Your task to perform on an android device: Open settings on Google Maps Image 0: 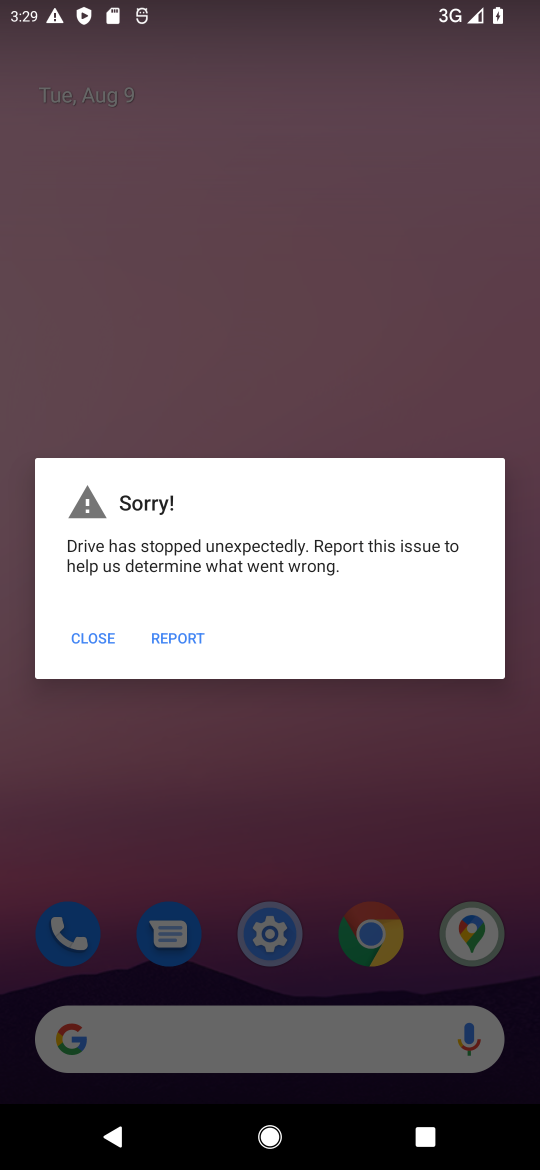
Step 0: press home button
Your task to perform on an android device: Open settings on Google Maps Image 1: 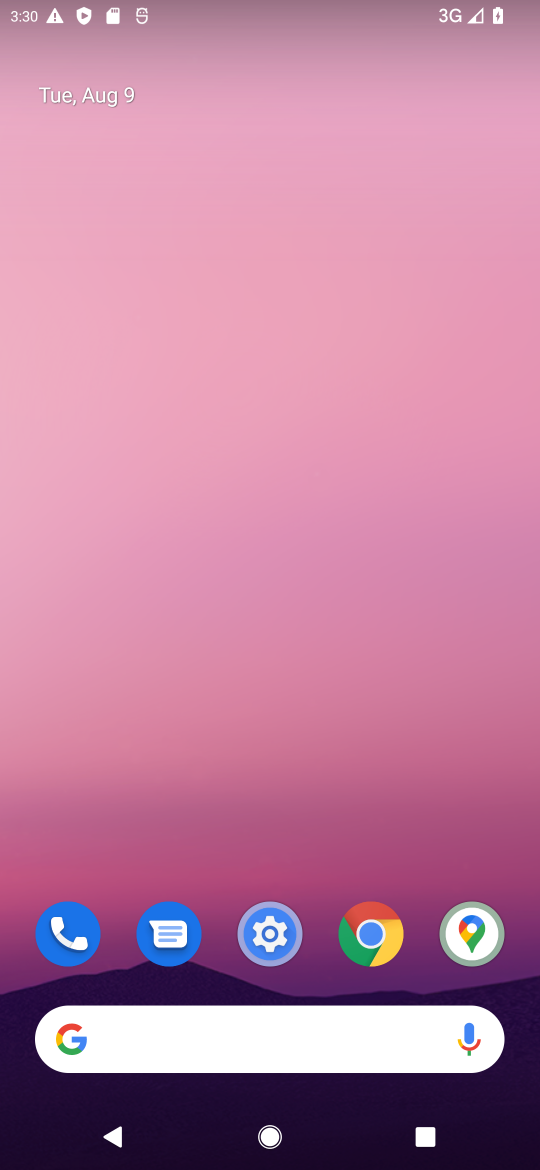
Step 1: click (496, 931)
Your task to perform on an android device: Open settings on Google Maps Image 2: 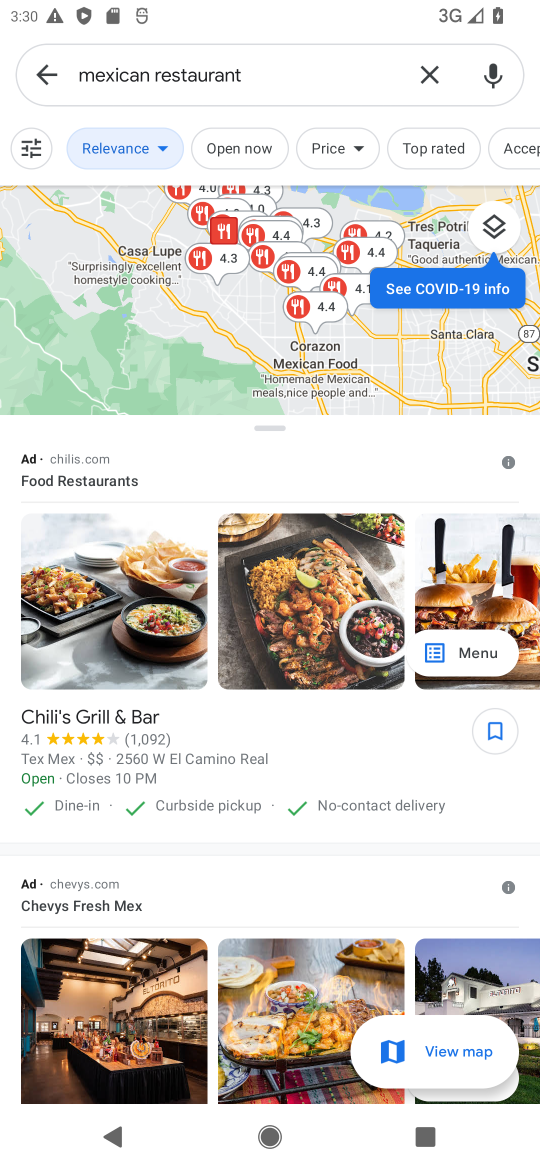
Step 2: task complete